Your task to perform on an android device: Open Amazon Image 0: 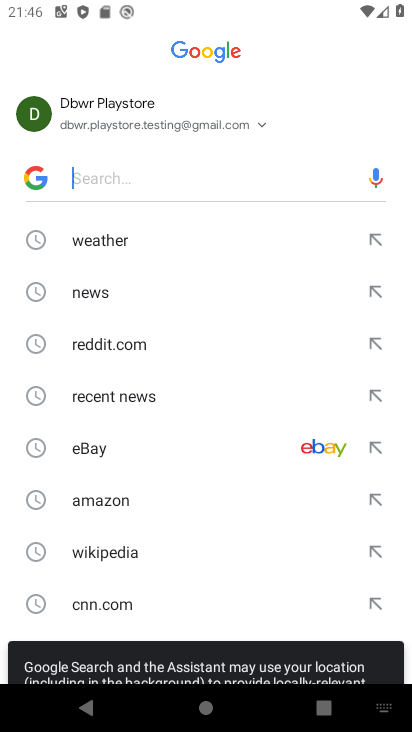
Step 0: press home button
Your task to perform on an android device: Open Amazon Image 1: 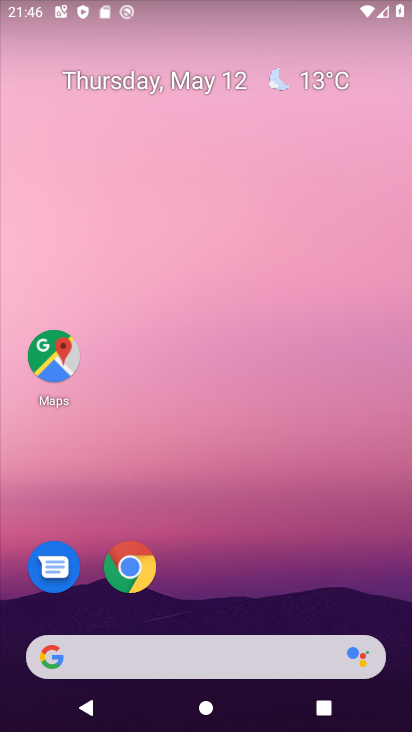
Step 1: click (129, 565)
Your task to perform on an android device: Open Amazon Image 2: 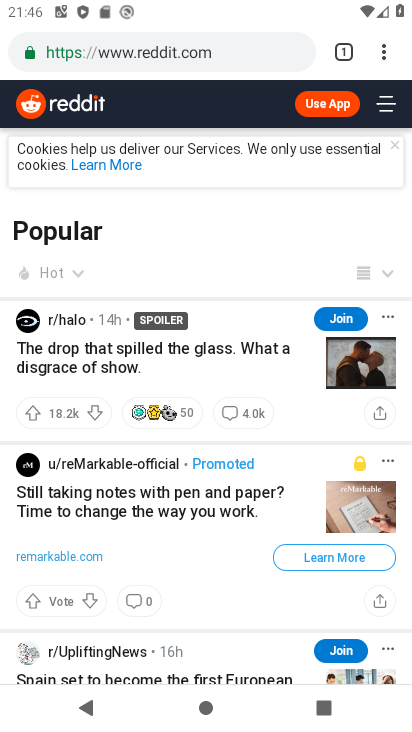
Step 2: click (341, 48)
Your task to perform on an android device: Open Amazon Image 3: 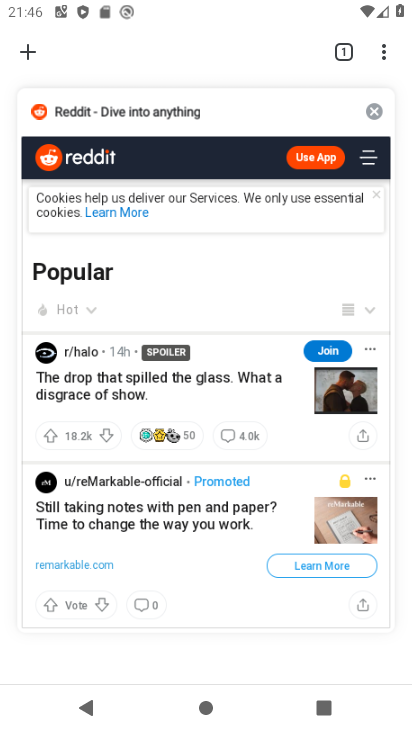
Step 3: click (374, 108)
Your task to perform on an android device: Open Amazon Image 4: 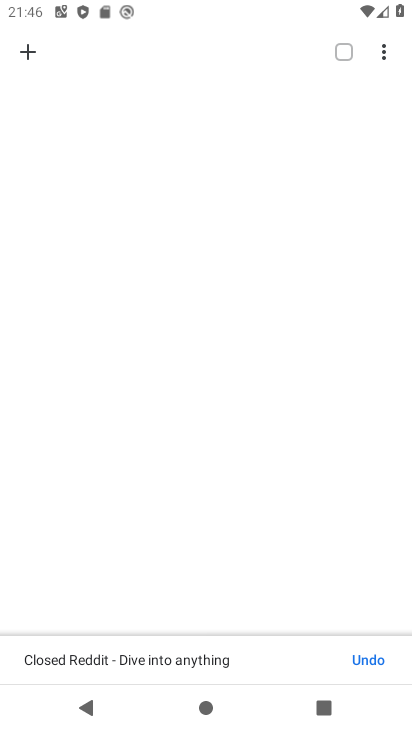
Step 4: click (31, 59)
Your task to perform on an android device: Open Amazon Image 5: 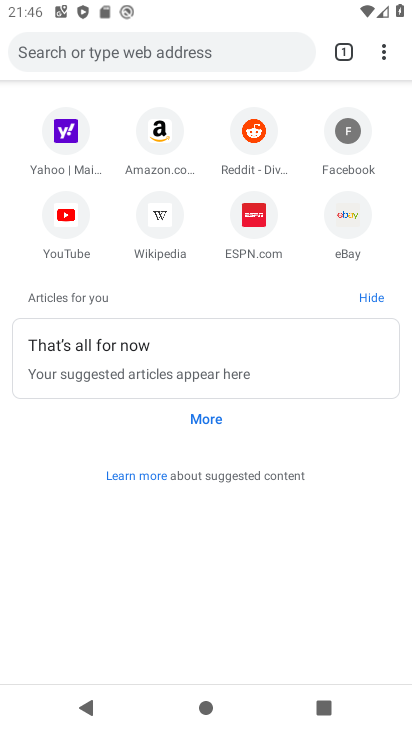
Step 5: click (158, 123)
Your task to perform on an android device: Open Amazon Image 6: 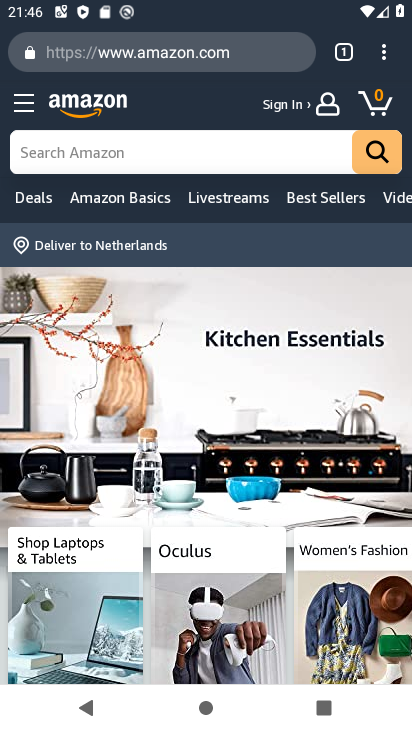
Step 6: task complete